Your task to perform on an android device: empty trash in google photos Image 0: 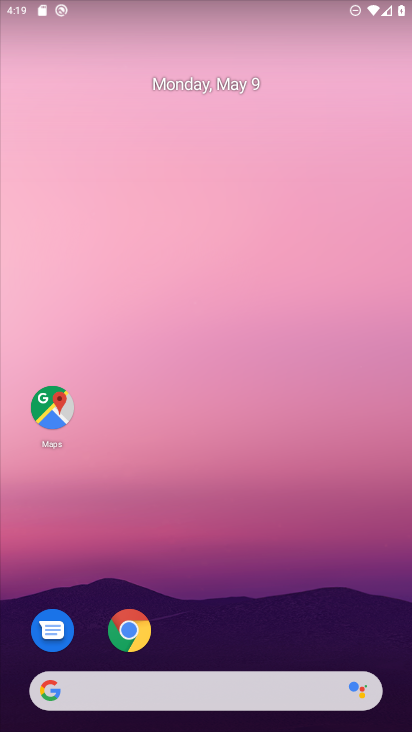
Step 0: drag from (297, 614) to (162, 2)
Your task to perform on an android device: empty trash in google photos Image 1: 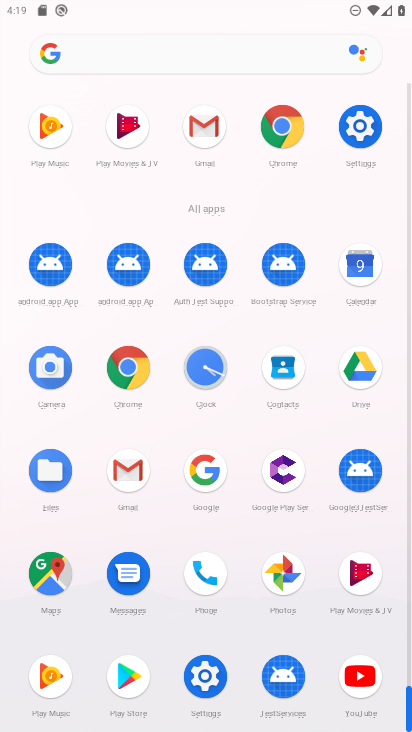
Step 1: click (280, 563)
Your task to perform on an android device: empty trash in google photos Image 2: 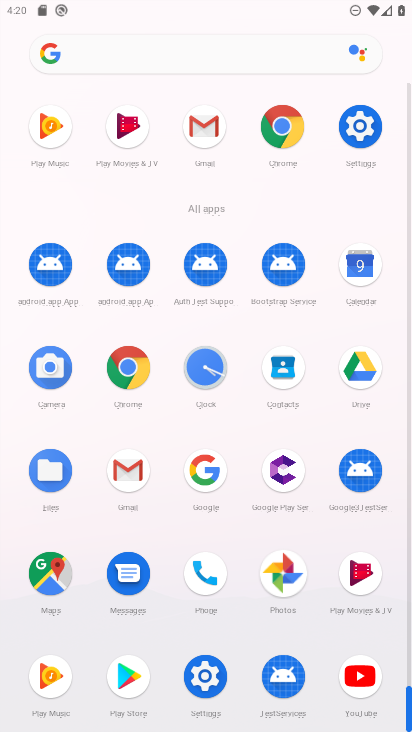
Step 2: click (280, 563)
Your task to perform on an android device: empty trash in google photos Image 3: 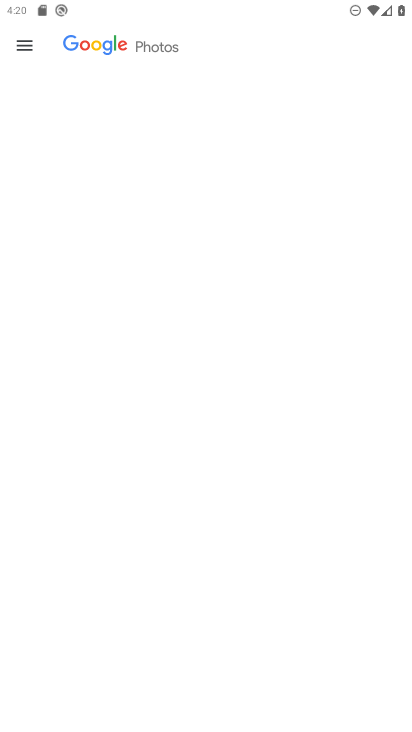
Step 3: click (282, 566)
Your task to perform on an android device: empty trash in google photos Image 4: 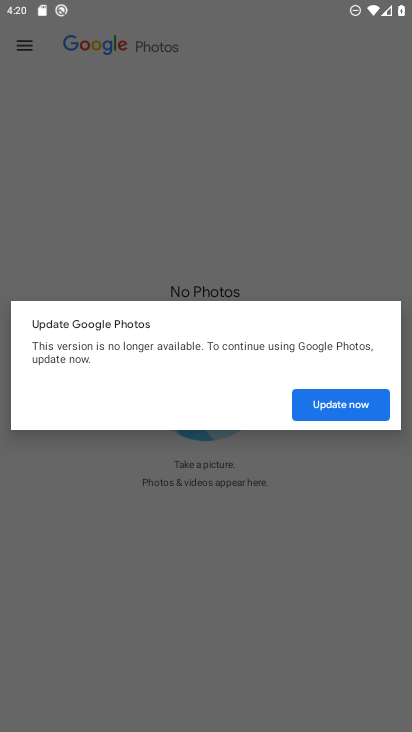
Step 4: click (312, 398)
Your task to perform on an android device: empty trash in google photos Image 5: 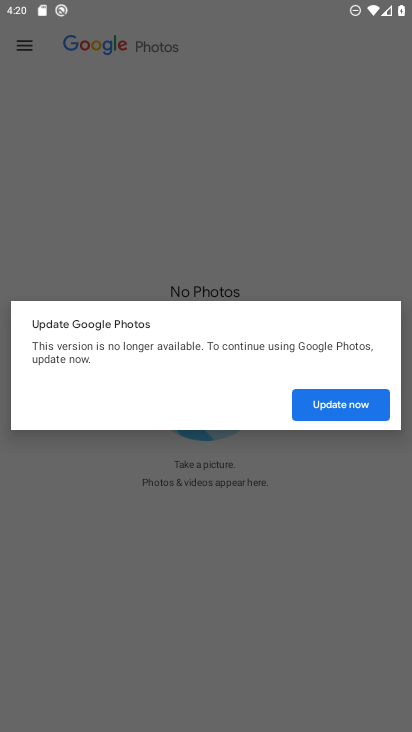
Step 5: click (313, 398)
Your task to perform on an android device: empty trash in google photos Image 6: 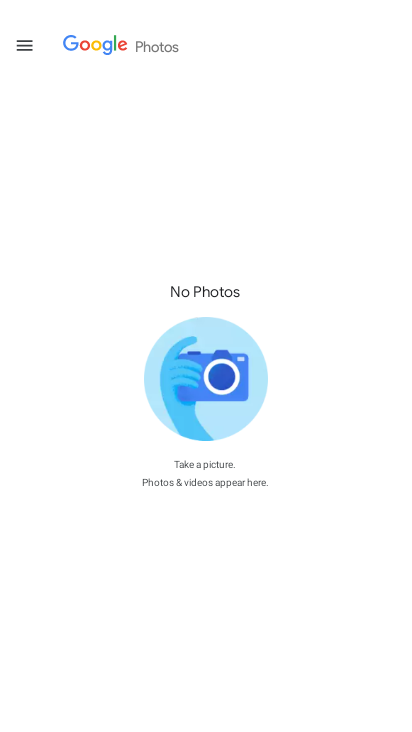
Step 6: click (313, 398)
Your task to perform on an android device: empty trash in google photos Image 7: 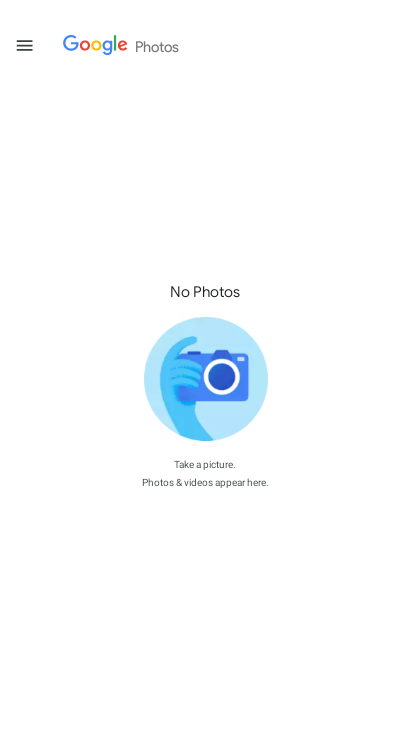
Step 7: click (314, 398)
Your task to perform on an android device: empty trash in google photos Image 8: 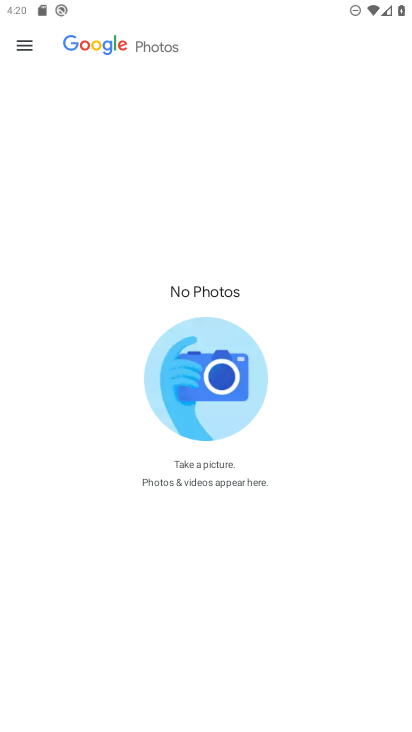
Step 8: click (24, 38)
Your task to perform on an android device: empty trash in google photos Image 9: 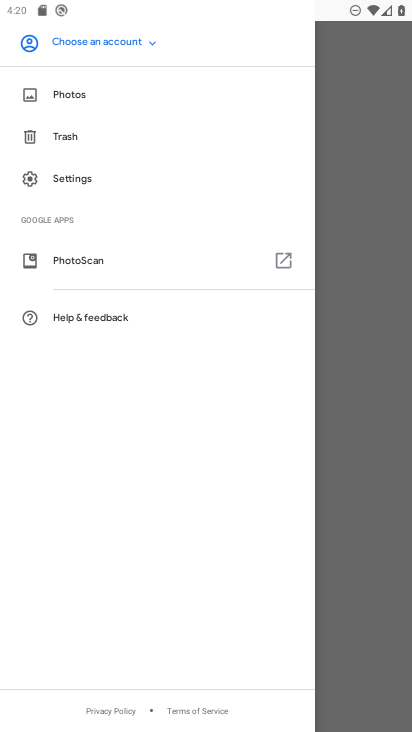
Step 9: click (65, 133)
Your task to perform on an android device: empty trash in google photos Image 10: 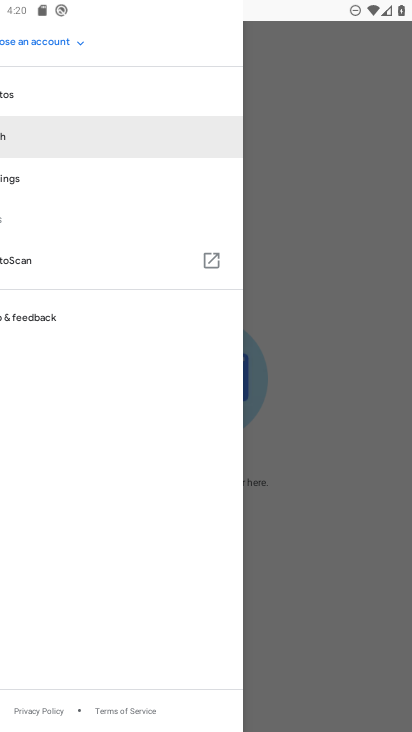
Step 10: click (62, 142)
Your task to perform on an android device: empty trash in google photos Image 11: 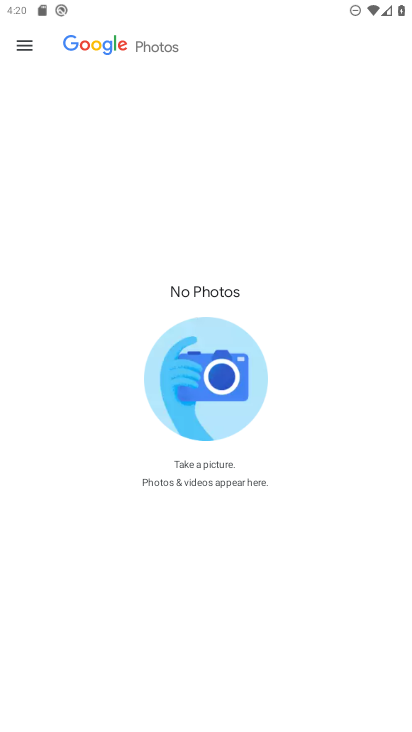
Step 11: click (62, 142)
Your task to perform on an android device: empty trash in google photos Image 12: 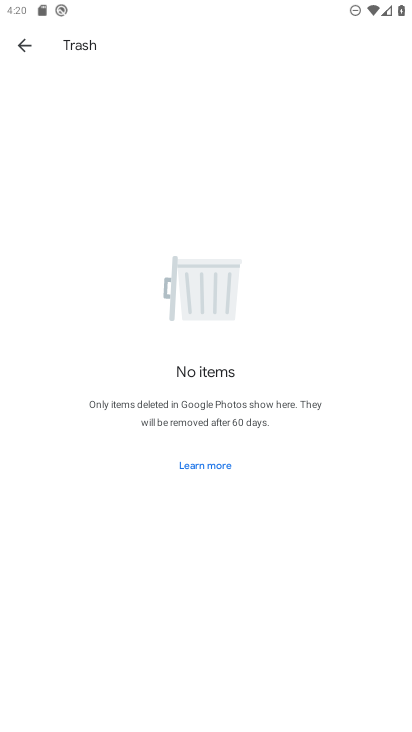
Step 12: task complete